Your task to perform on an android device: add a contact in the contacts app Image 0: 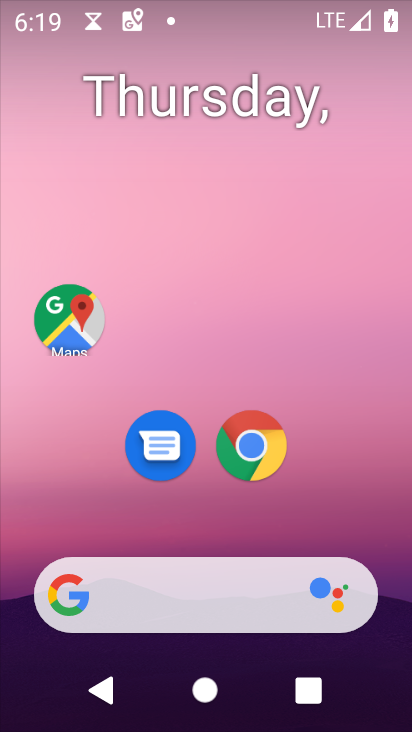
Step 0: drag from (306, 534) to (299, 124)
Your task to perform on an android device: add a contact in the contacts app Image 1: 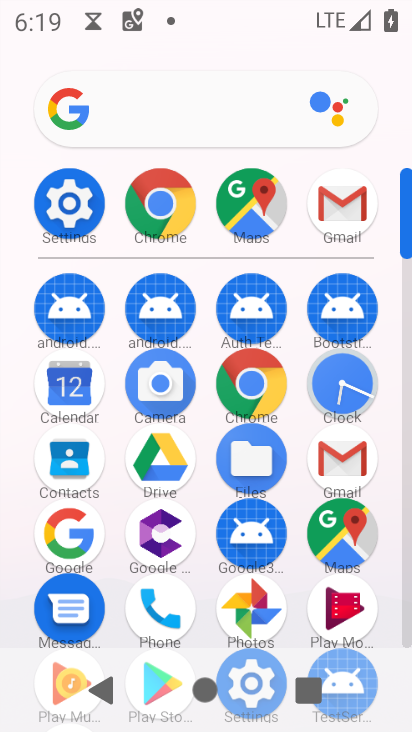
Step 1: click (68, 464)
Your task to perform on an android device: add a contact in the contacts app Image 2: 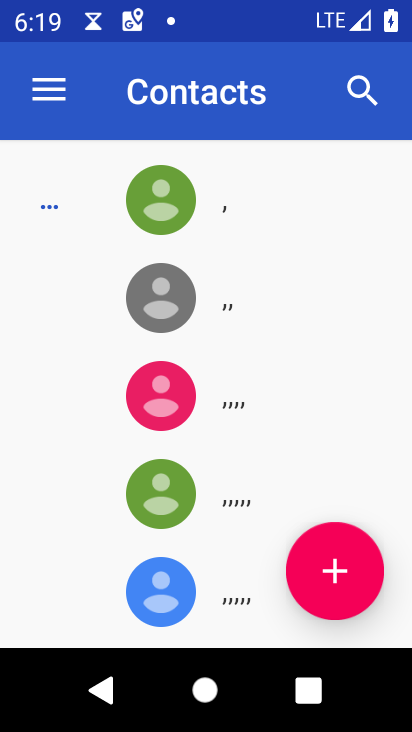
Step 2: click (319, 580)
Your task to perform on an android device: add a contact in the contacts app Image 3: 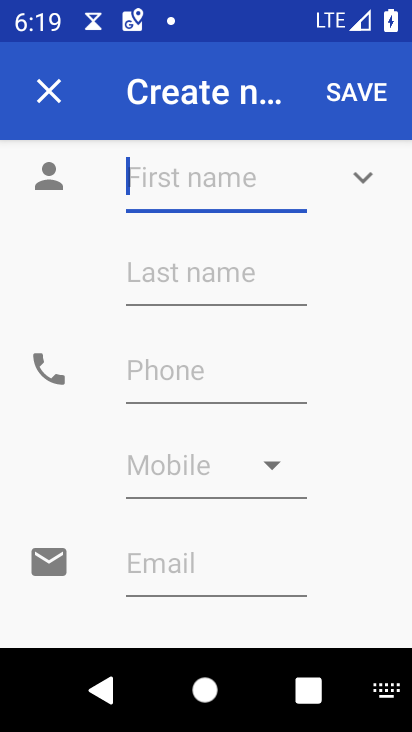
Step 3: type "bbbnn"
Your task to perform on an android device: add a contact in the contacts app Image 4: 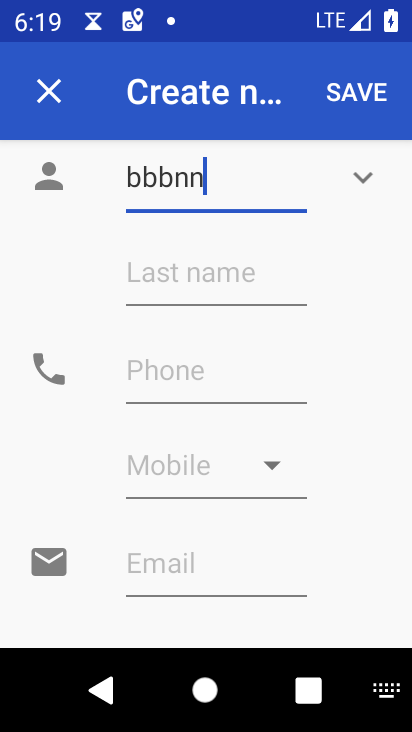
Step 4: click (193, 368)
Your task to perform on an android device: add a contact in the contacts app Image 5: 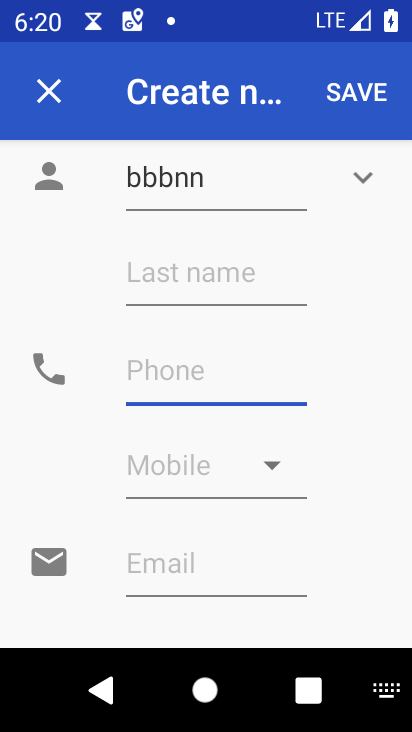
Step 5: type "0935"
Your task to perform on an android device: add a contact in the contacts app Image 6: 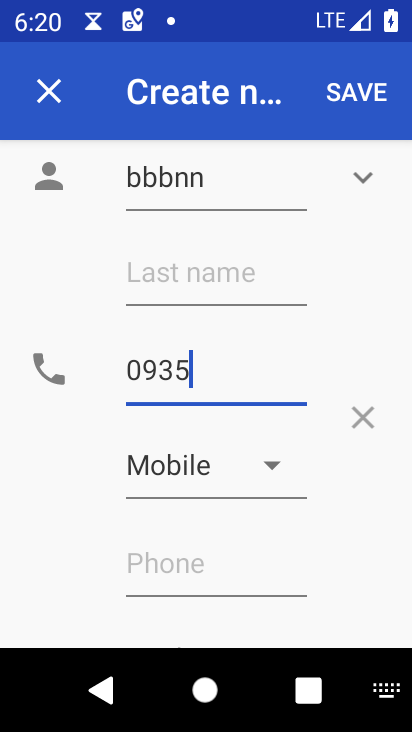
Step 6: click (366, 95)
Your task to perform on an android device: add a contact in the contacts app Image 7: 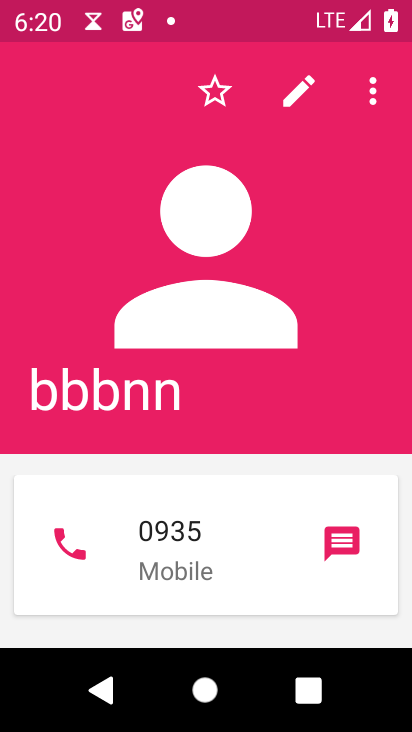
Step 7: task complete